Your task to perform on an android device: open the mobile data screen to see how much data has been used Image 0: 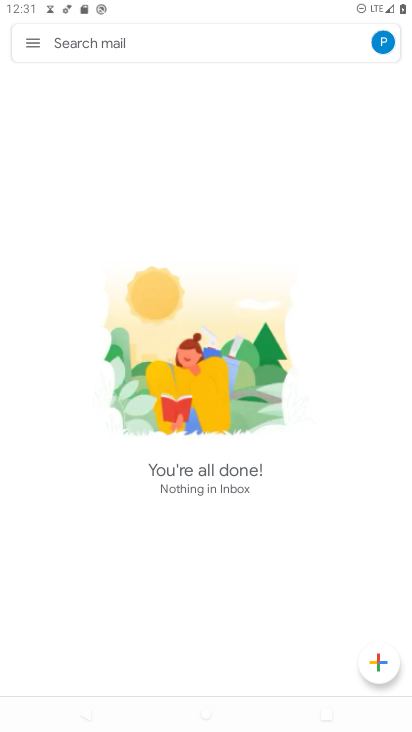
Step 0: click (29, 42)
Your task to perform on an android device: open the mobile data screen to see how much data has been used Image 1: 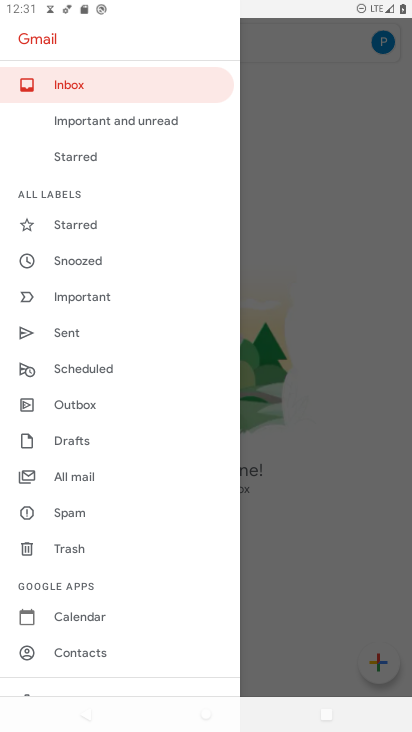
Step 1: press home button
Your task to perform on an android device: open the mobile data screen to see how much data has been used Image 2: 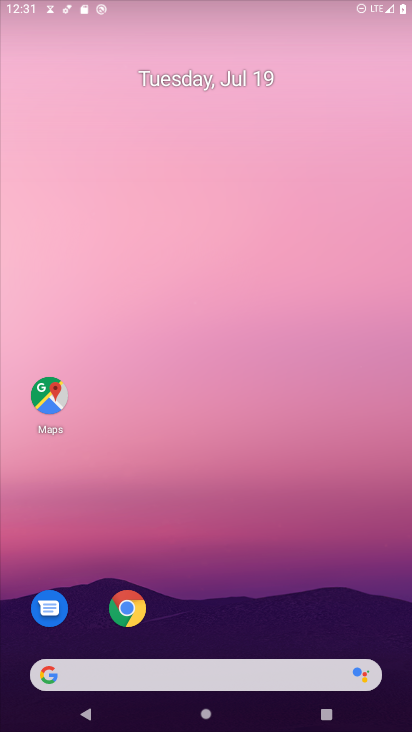
Step 2: drag from (248, 596) to (206, 6)
Your task to perform on an android device: open the mobile data screen to see how much data has been used Image 3: 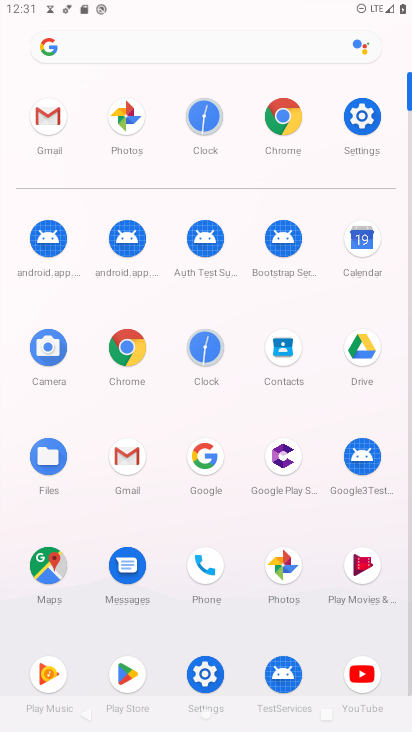
Step 3: click (359, 113)
Your task to perform on an android device: open the mobile data screen to see how much data has been used Image 4: 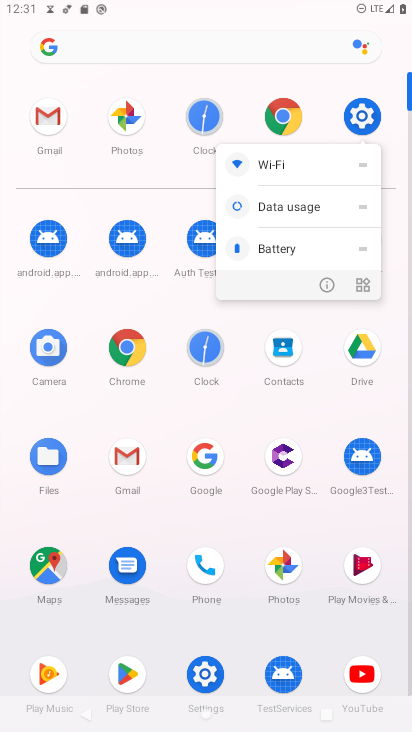
Step 4: click (358, 111)
Your task to perform on an android device: open the mobile data screen to see how much data has been used Image 5: 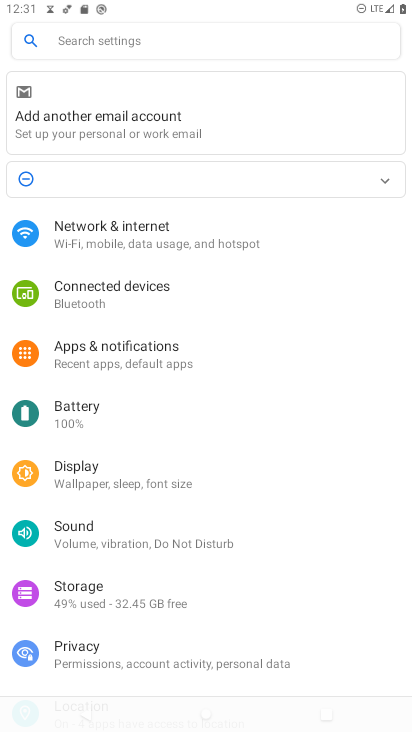
Step 5: click (199, 223)
Your task to perform on an android device: open the mobile data screen to see how much data has been used Image 6: 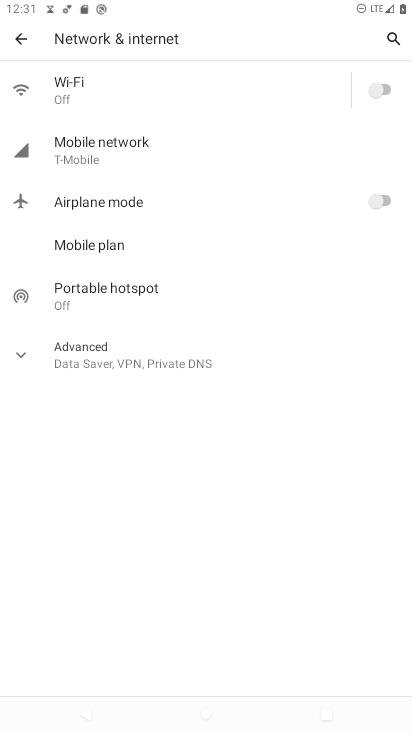
Step 6: click (158, 154)
Your task to perform on an android device: open the mobile data screen to see how much data has been used Image 7: 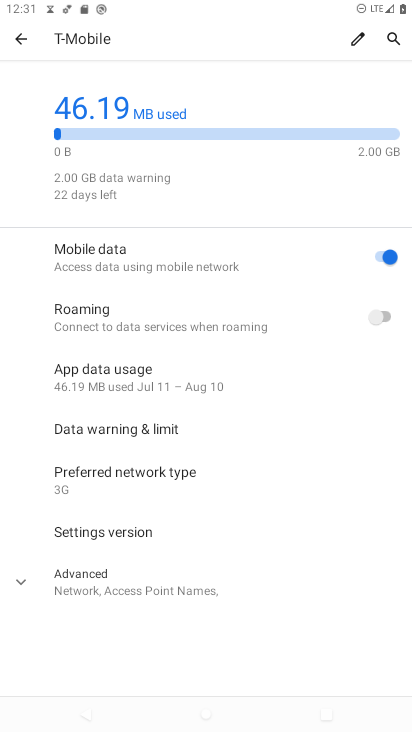
Step 7: task complete